Your task to perform on an android device: Go to location settings Image 0: 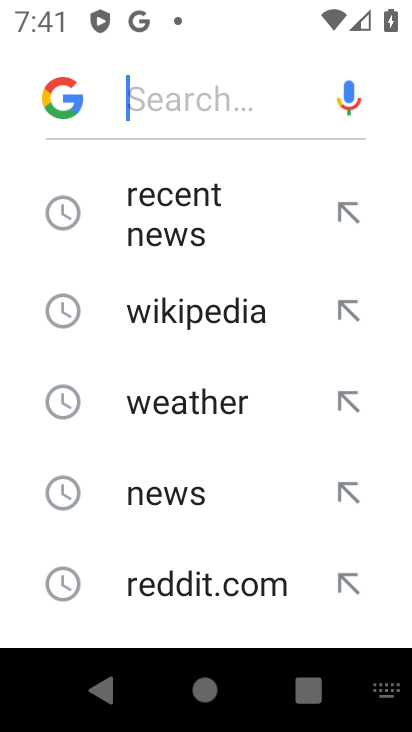
Step 0: drag from (339, 487) to (328, 291)
Your task to perform on an android device: Go to location settings Image 1: 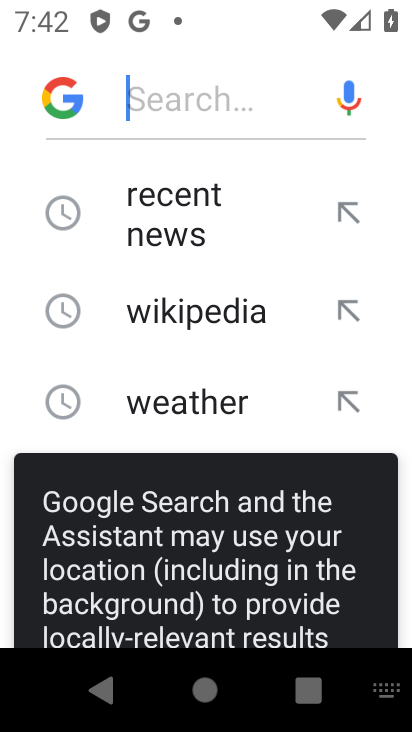
Step 1: press home button
Your task to perform on an android device: Go to location settings Image 2: 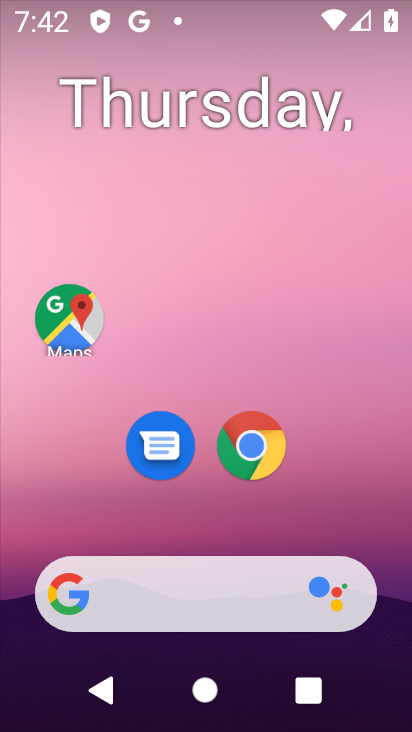
Step 2: drag from (319, 506) to (253, 148)
Your task to perform on an android device: Go to location settings Image 3: 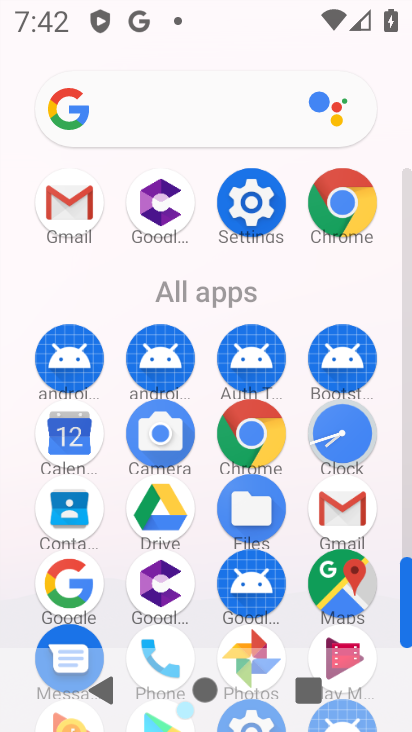
Step 3: click (267, 225)
Your task to perform on an android device: Go to location settings Image 4: 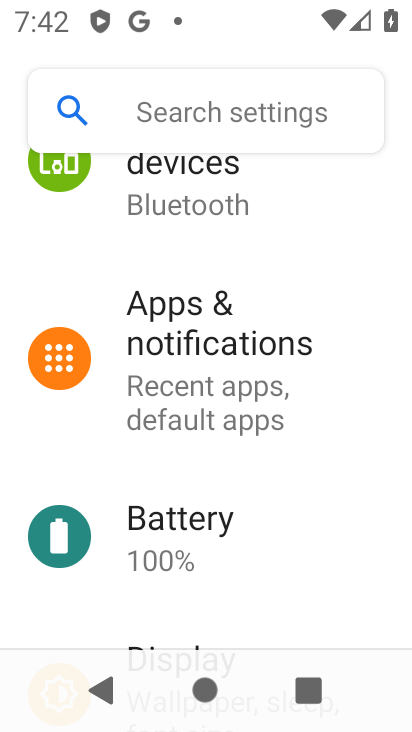
Step 4: drag from (274, 604) to (295, 275)
Your task to perform on an android device: Go to location settings Image 5: 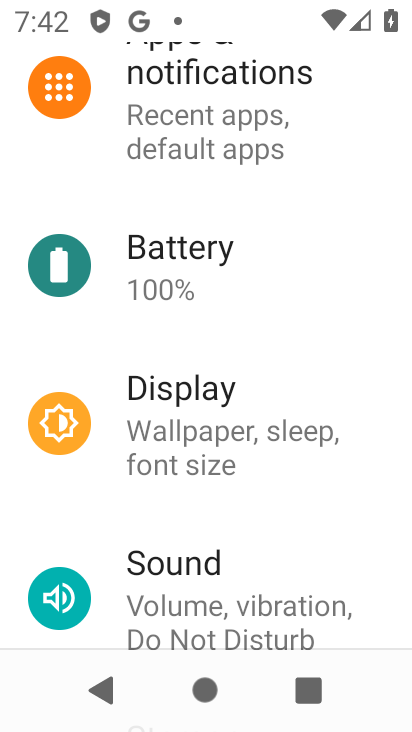
Step 5: drag from (292, 544) to (292, 221)
Your task to perform on an android device: Go to location settings Image 6: 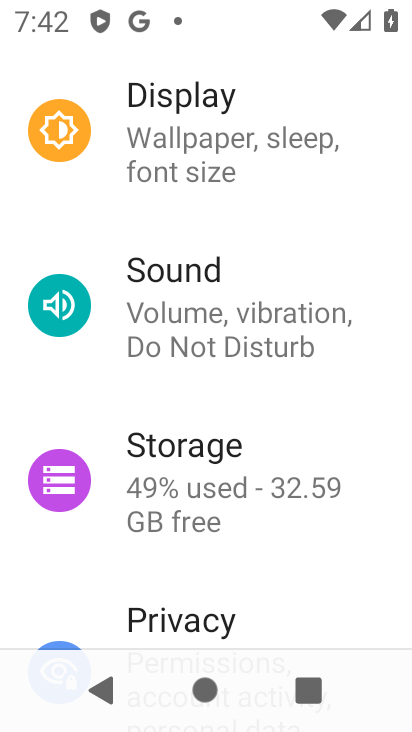
Step 6: drag from (312, 528) to (357, 209)
Your task to perform on an android device: Go to location settings Image 7: 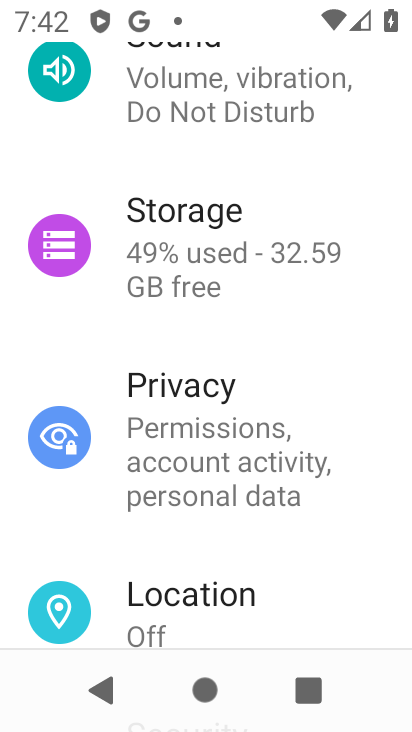
Step 7: click (228, 597)
Your task to perform on an android device: Go to location settings Image 8: 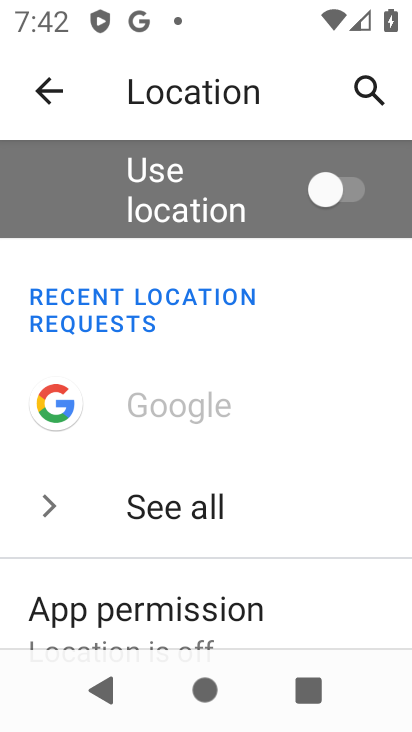
Step 8: task complete